Your task to perform on an android device: Search for the new Nintendo switch on Walmart. Image 0: 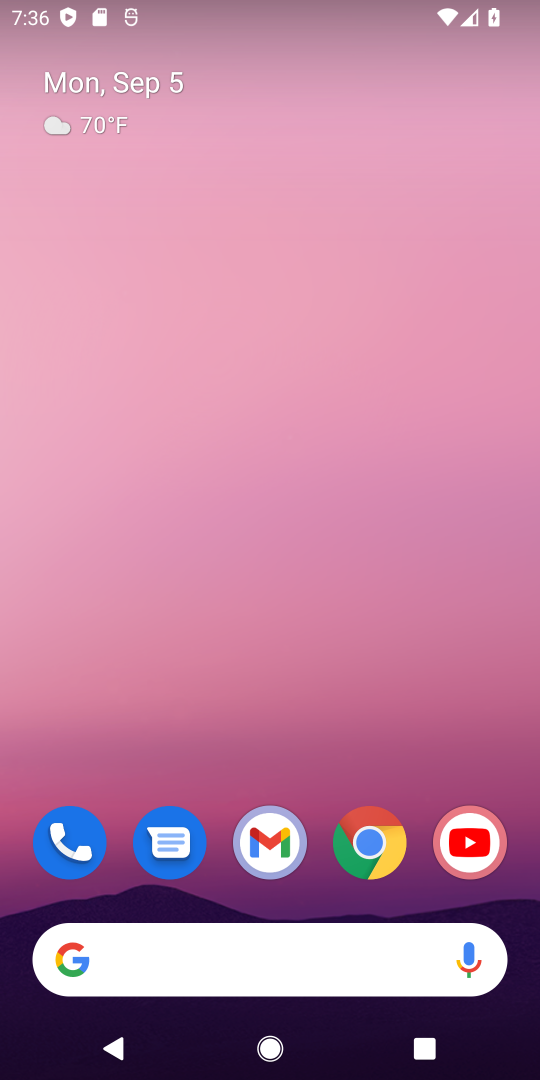
Step 0: click (372, 843)
Your task to perform on an android device: Search for the new Nintendo switch on Walmart. Image 1: 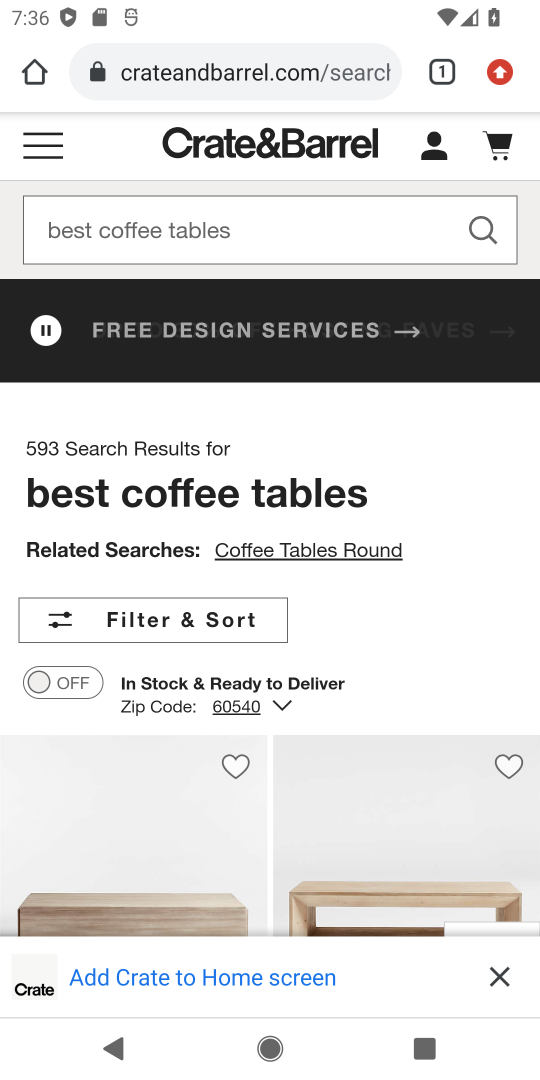
Step 1: click (202, 83)
Your task to perform on an android device: Search for the new Nintendo switch on Walmart. Image 2: 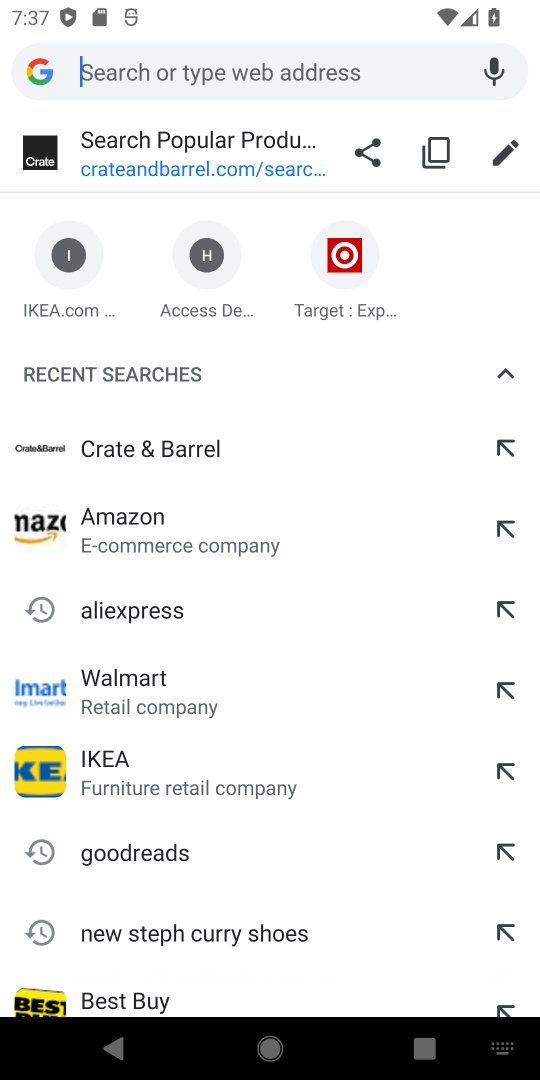
Step 2: type "walmart"
Your task to perform on an android device: Search for the new Nintendo switch on Walmart. Image 3: 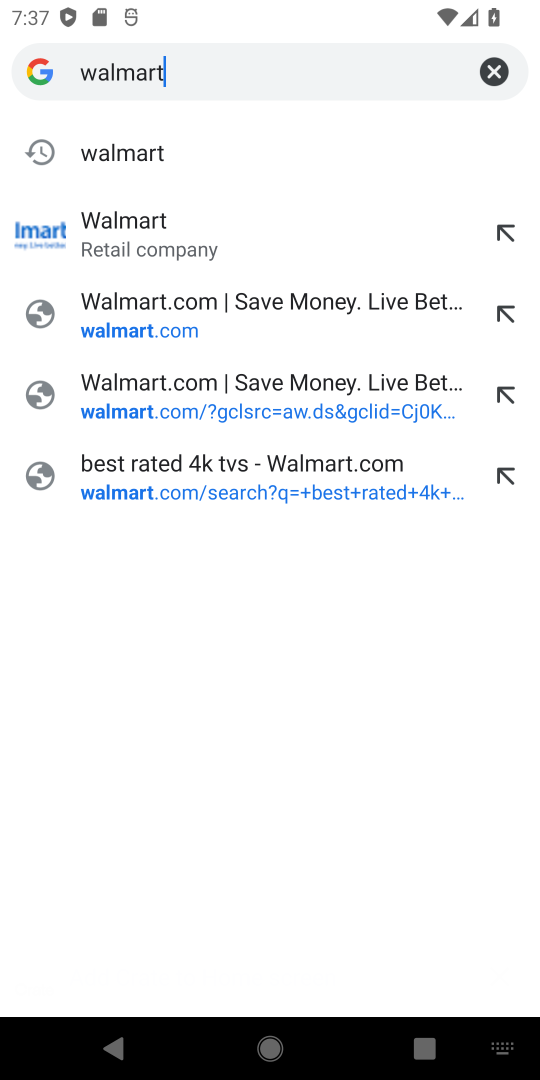
Step 3: click (124, 155)
Your task to perform on an android device: Search for the new Nintendo switch on Walmart. Image 4: 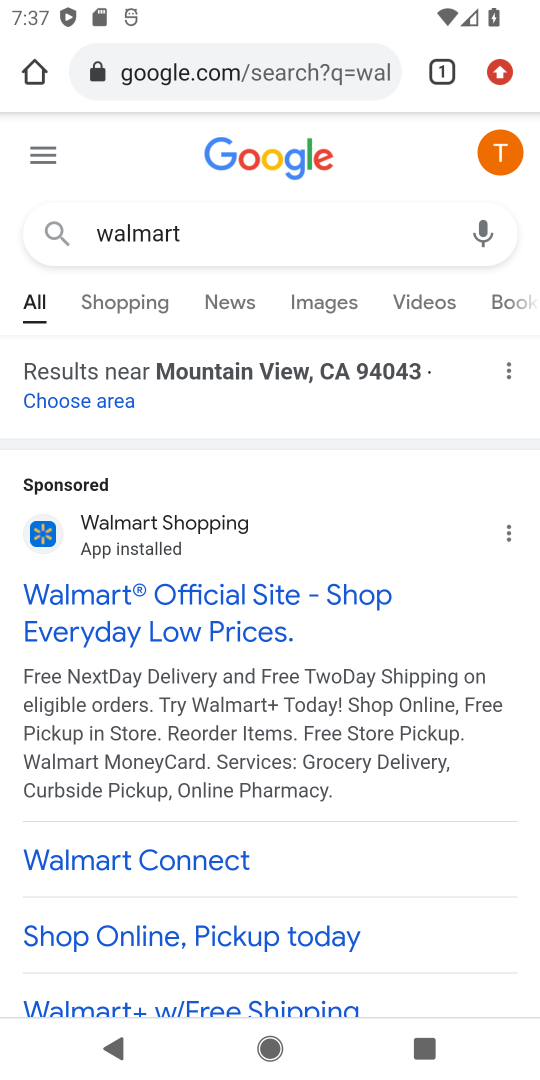
Step 4: drag from (360, 863) to (400, 441)
Your task to perform on an android device: Search for the new Nintendo switch on Walmart. Image 5: 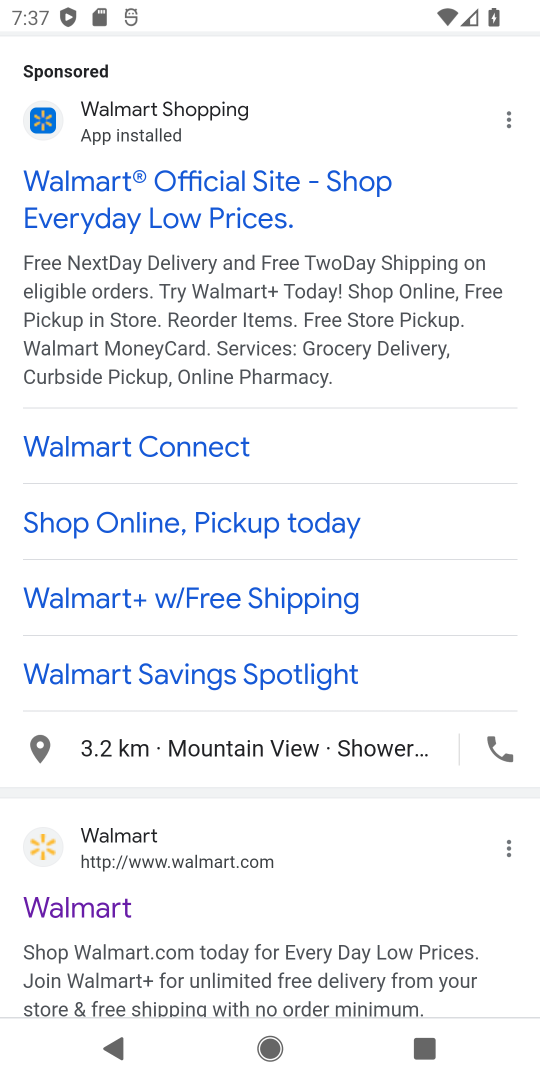
Step 5: click (156, 920)
Your task to perform on an android device: Search for the new Nintendo switch on Walmart. Image 6: 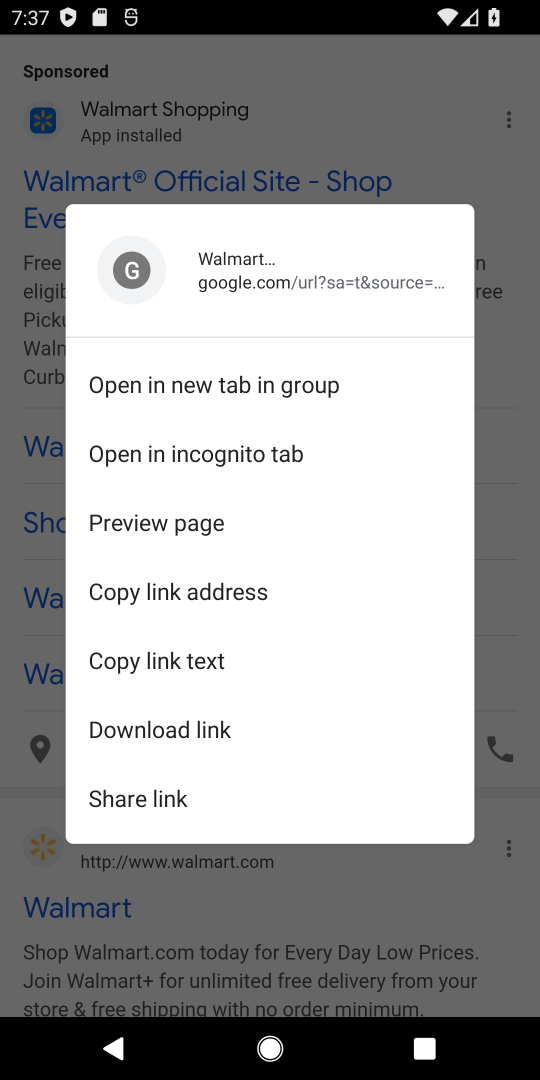
Step 6: click (156, 920)
Your task to perform on an android device: Search for the new Nintendo switch on Walmart. Image 7: 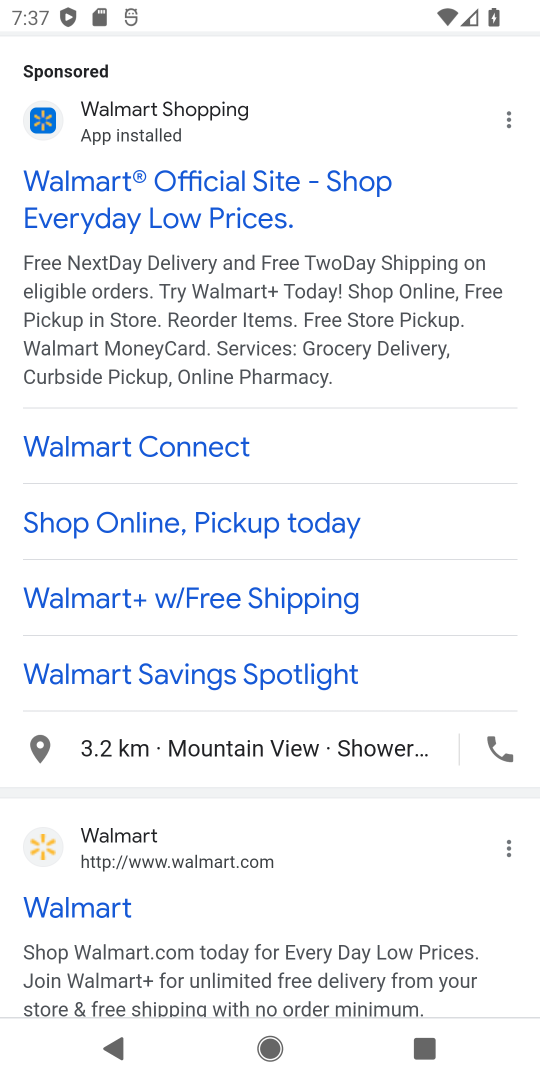
Step 7: click (120, 925)
Your task to perform on an android device: Search for the new Nintendo switch on Walmart. Image 8: 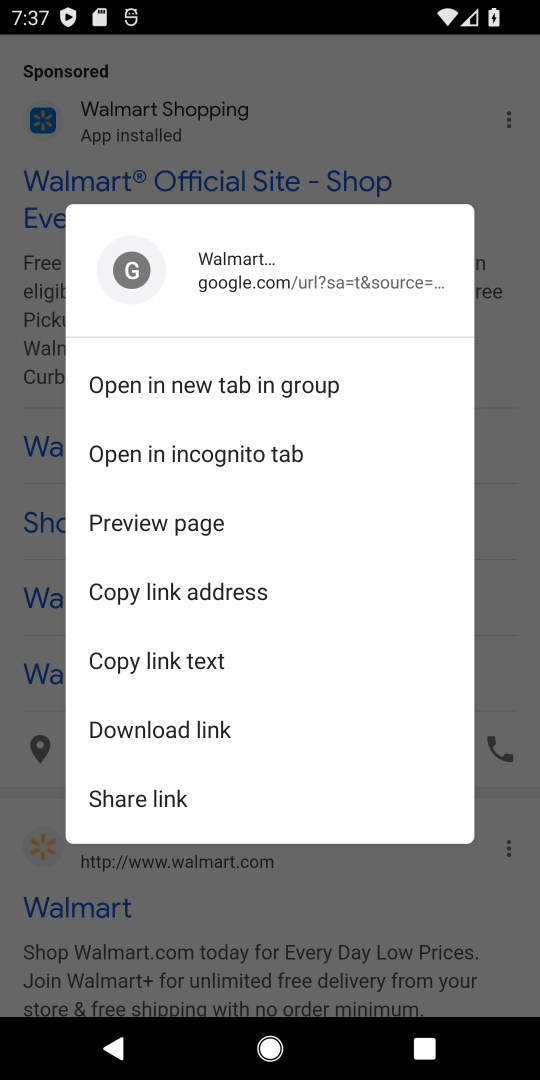
Step 8: click (120, 926)
Your task to perform on an android device: Search for the new Nintendo switch on Walmart. Image 9: 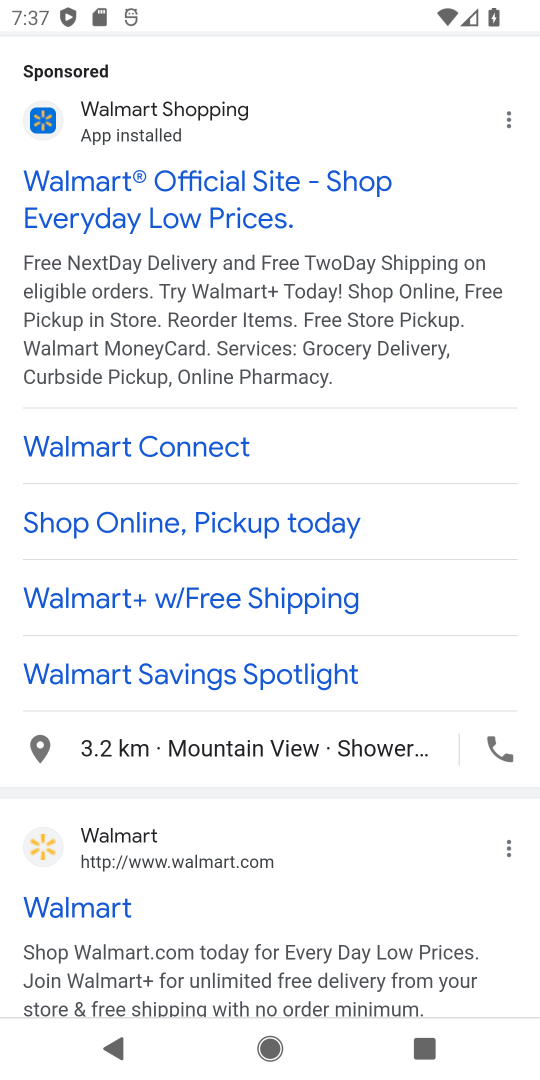
Step 9: click (78, 925)
Your task to perform on an android device: Search for the new Nintendo switch on Walmart. Image 10: 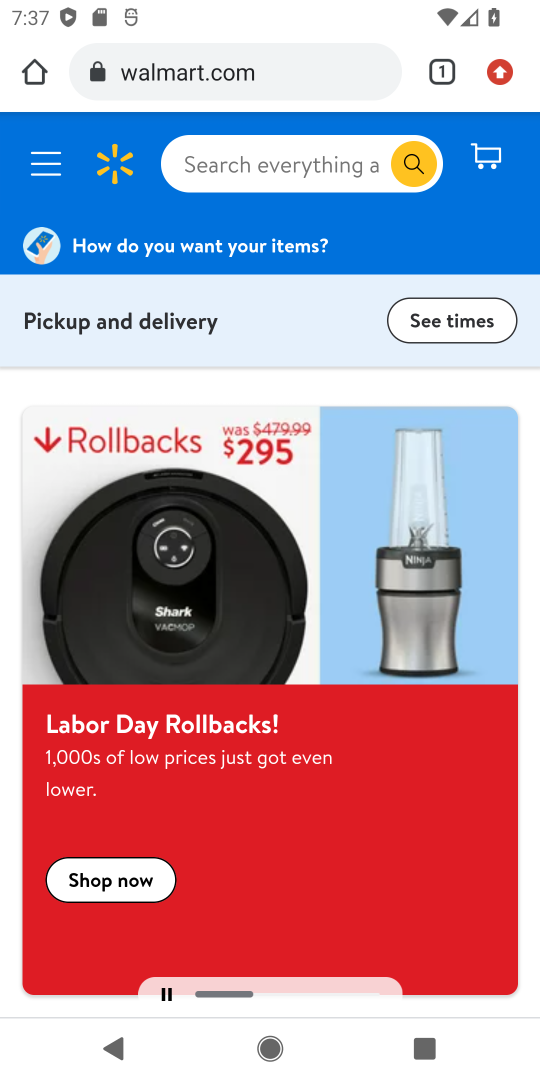
Step 10: click (229, 155)
Your task to perform on an android device: Search for the new Nintendo switch on Walmart. Image 11: 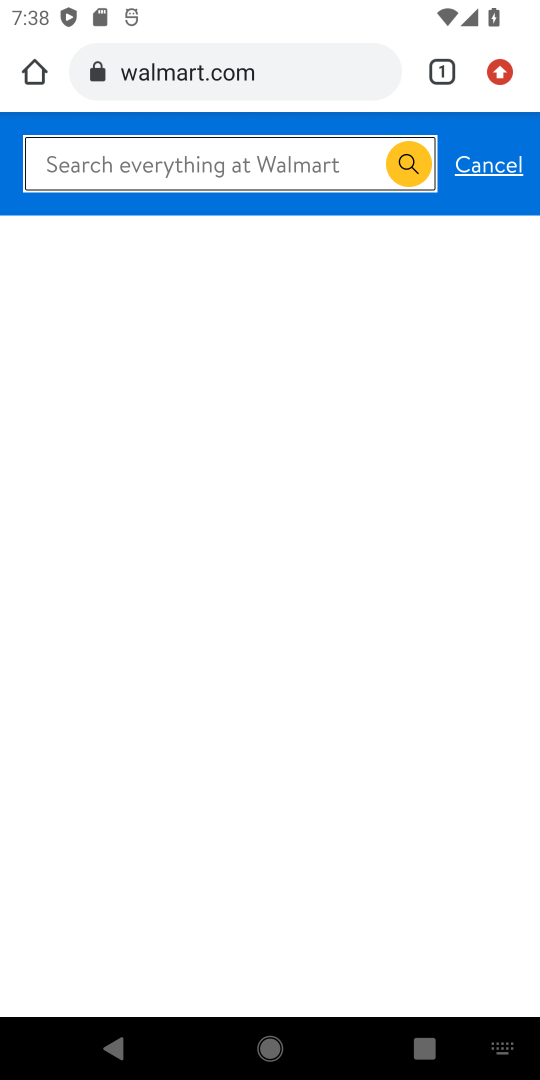
Step 11: click (246, 169)
Your task to perform on an android device: Search for the new Nintendo switch on Walmart. Image 12: 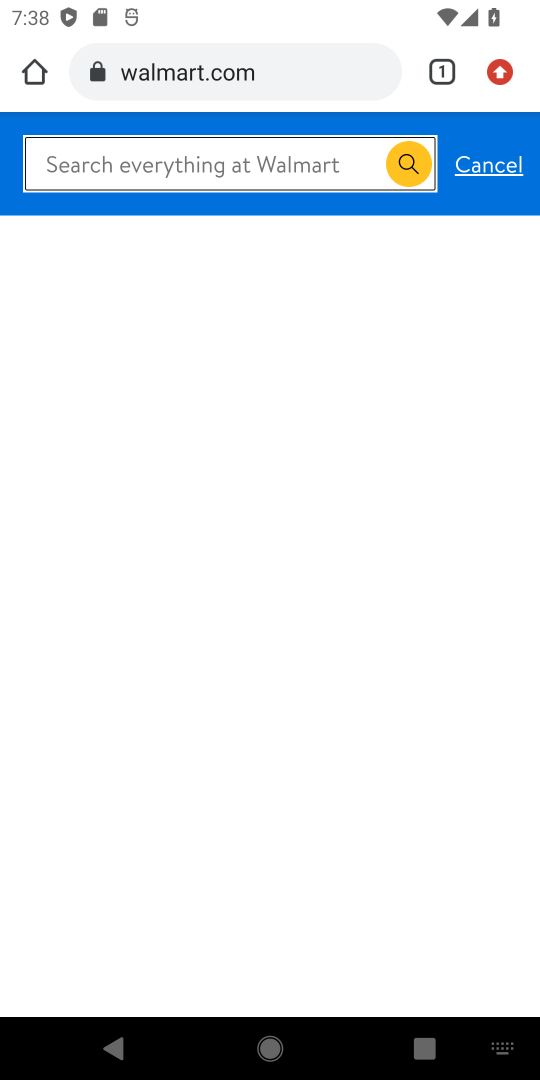
Step 12: type "Nintendo switch"
Your task to perform on an android device: Search for the new Nintendo switch on Walmart. Image 13: 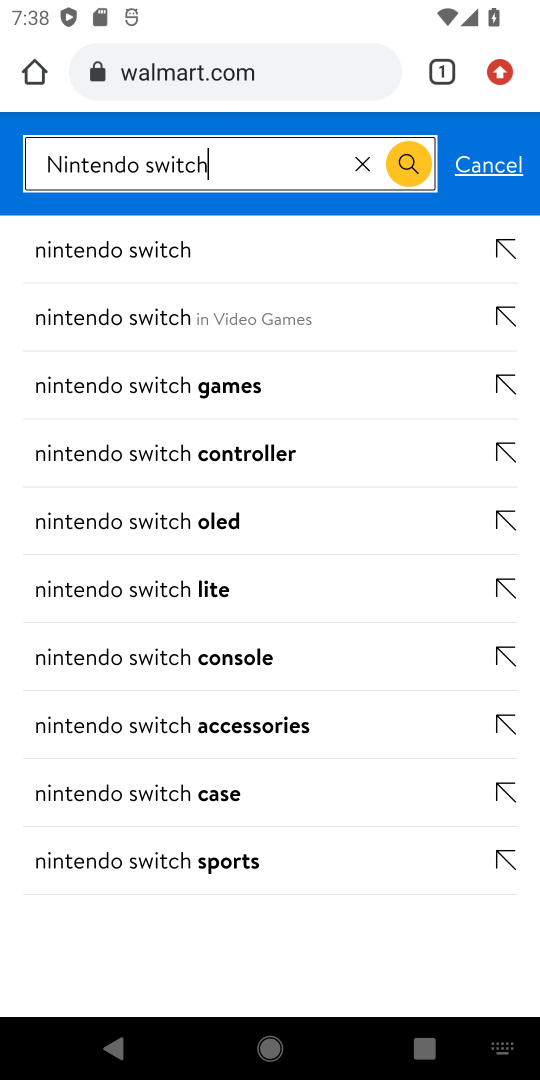
Step 13: click (410, 167)
Your task to perform on an android device: Search for the new Nintendo switch on Walmart. Image 14: 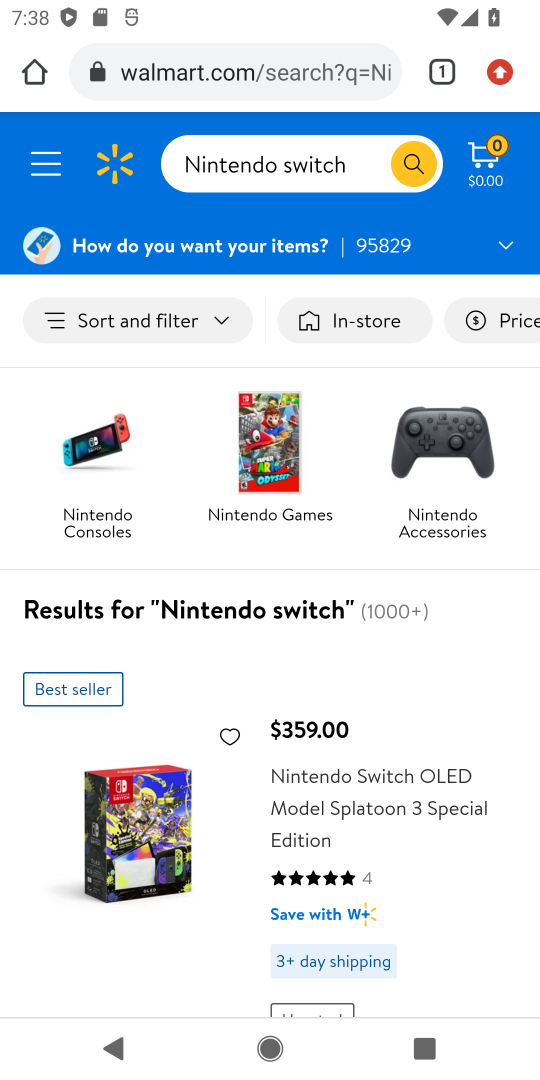
Step 14: task complete